Your task to perform on an android device: read, delete, or share a saved page in the chrome app Image 0: 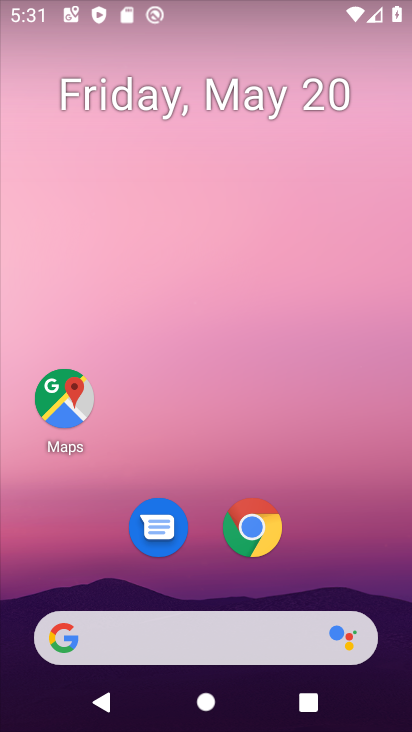
Step 0: drag from (234, 578) to (186, 99)
Your task to perform on an android device: read, delete, or share a saved page in the chrome app Image 1: 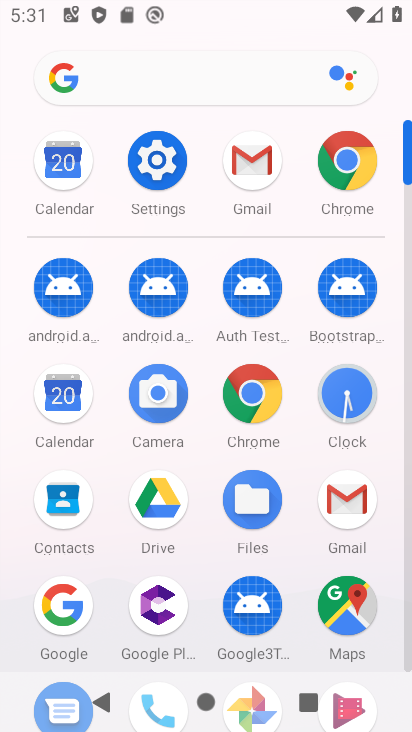
Step 1: click (252, 405)
Your task to perform on an android device: read, delete, or share a saved page in the chrome app Image 2: 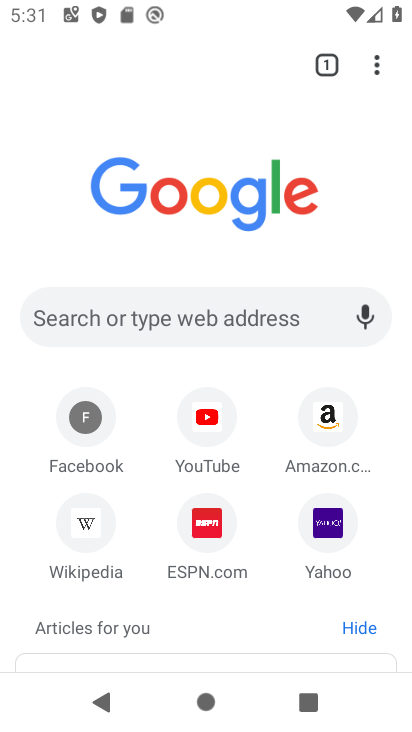
Step 2: drag from (377, 65) to (175, 430)
Your task to perform on an android device: read, delete, or share a saved page in the chrome app Image 3: 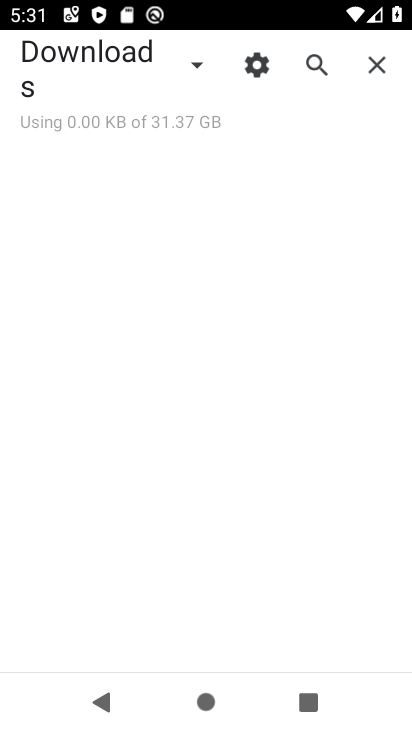
Step 3: press home button
Your task to perform on an android device: read, delete, or share a saved page in the chrome app Image 4: 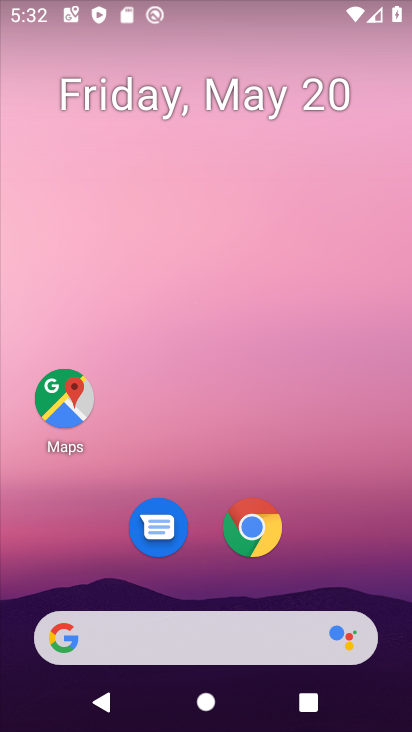
Step 4: drag from (145, 652) to (175, 100)
Your task to perform on an android device: read, delete, or share a saved page in the chrome app Image 5: 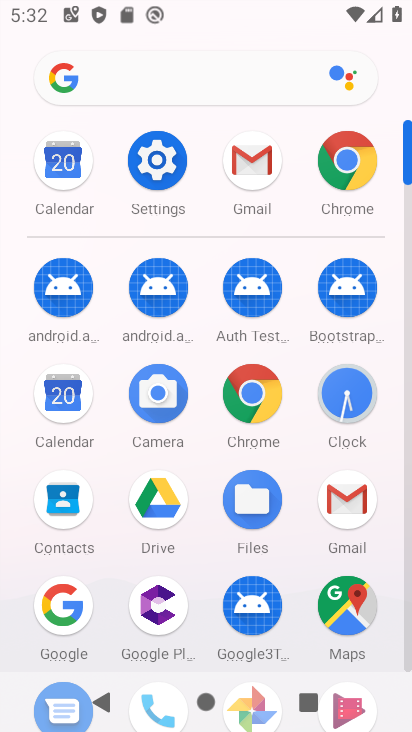
Step 5: click (262, 383)
Your task to perform on an android device: read, delete, or share a saved page in the chrome app Image 6: 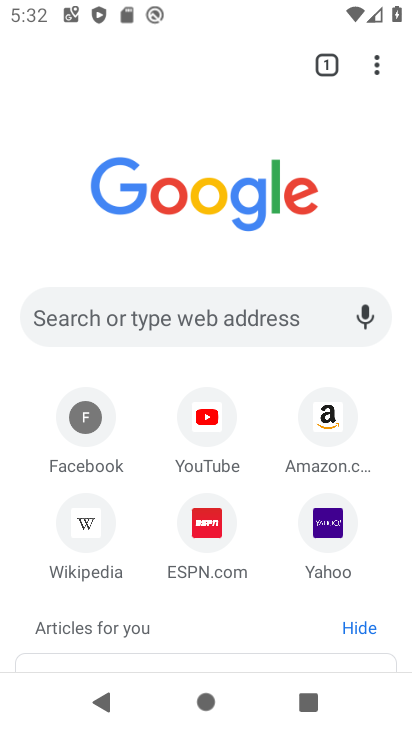
Step 6: task complete